Your task to perform on an android device: change the clock display to show seconds Image 0: 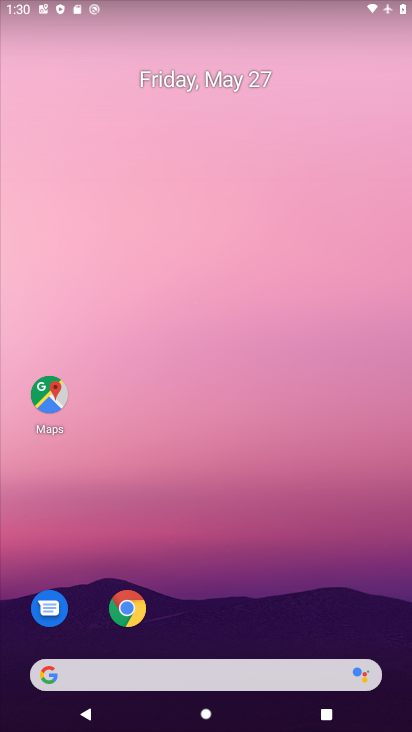
Step 0: press home button
Your task to perform on an android device: change the clock display to show seconds Image 1: 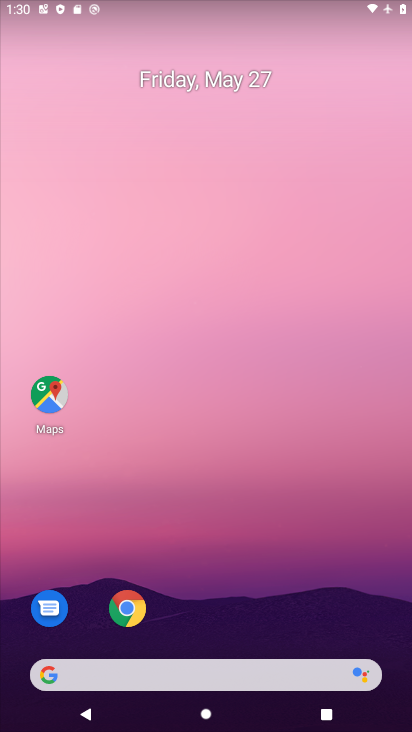
Step 1: drag from (204, 668) to (335, 191)
Your task to perform on an android device: change the clock display to show seconds Image 2: 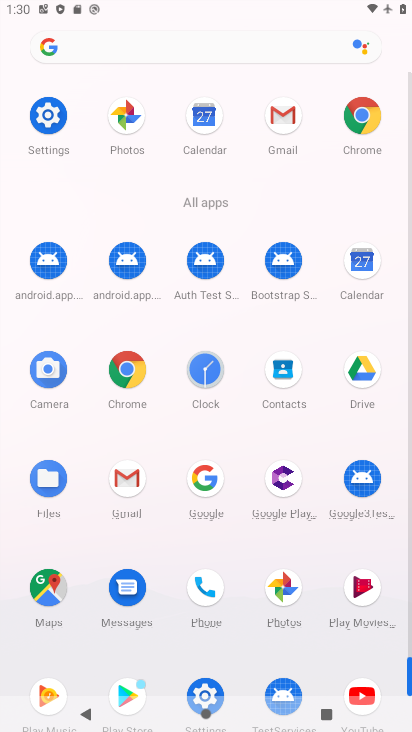
Step 2: click (201, 378)
Your task to perform on an android device: change the clock display to show seconds Image 3: 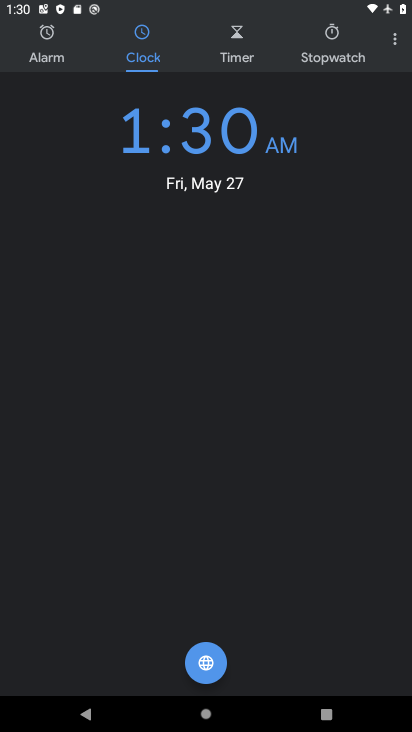
Step 3: click (399, 36)
Your task to perform on an android device: change the clock display to show seconds Image 4: 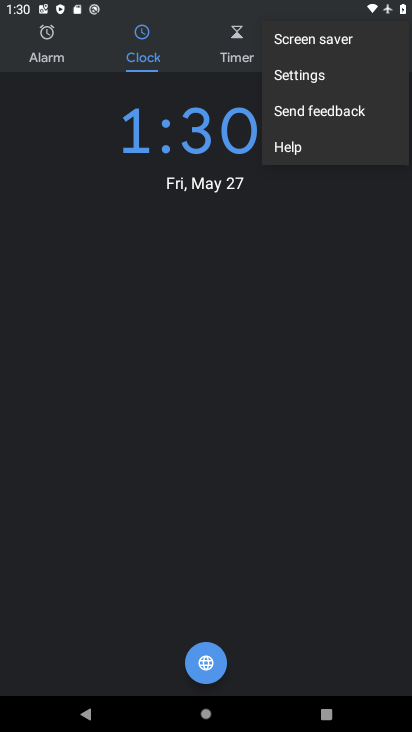
Step 4: click (320, 78)
Your task to perform on an android device: change the clock display to show seconds Image 5: 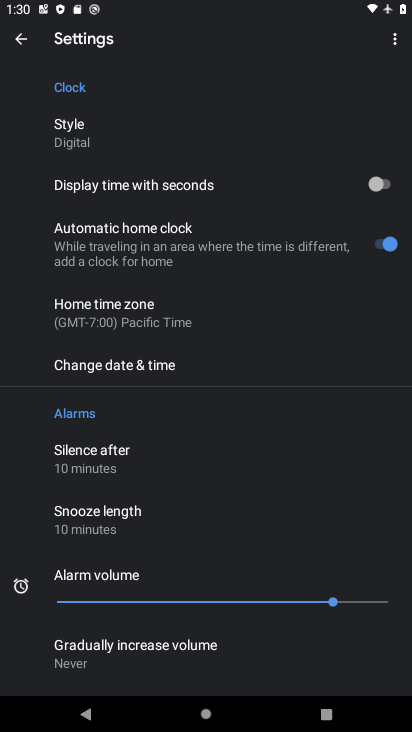
Step 5: click (385, 184)
Your task to perform on an android device: change the clock display to show seconds Image 6: 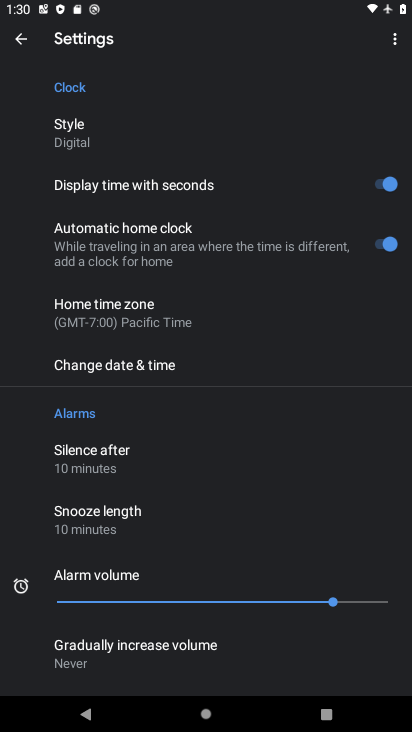
Step 6: task complete